Your task to perform on an android device: add a contact in the contacts app Image 0: 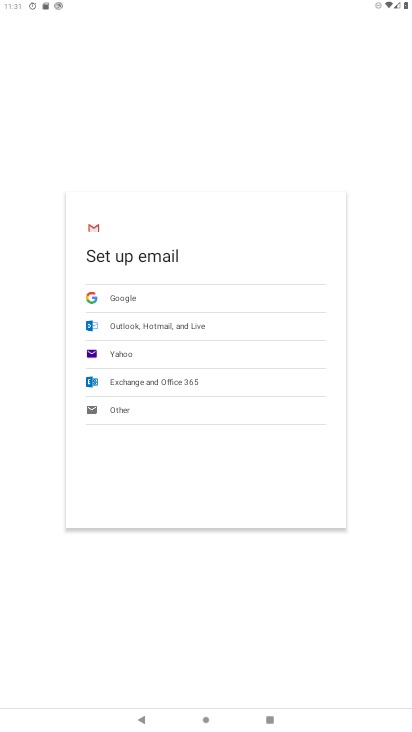
Step 0: press home button
Your task to perform on an android device: add a contact in the contacts app Image 1: 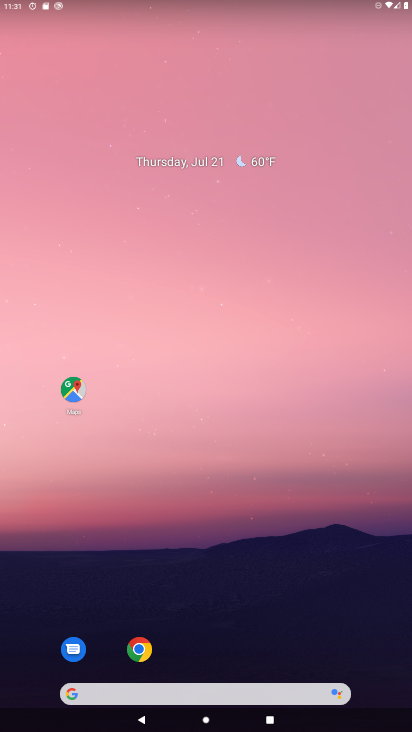
Step 1: drag from (386, 712) to (375, 221)
Your task to perform on an android device: add a contact in the contacts app Image 2: 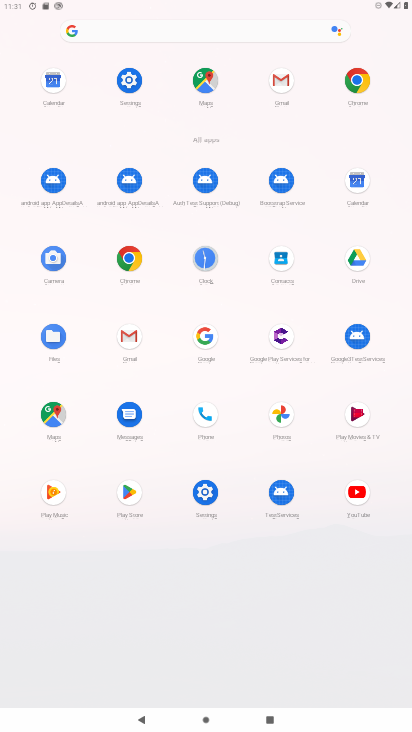
Step 2: click (284, 264)
Your task to perform on an android device: add a contact in the contacts app Image 3: 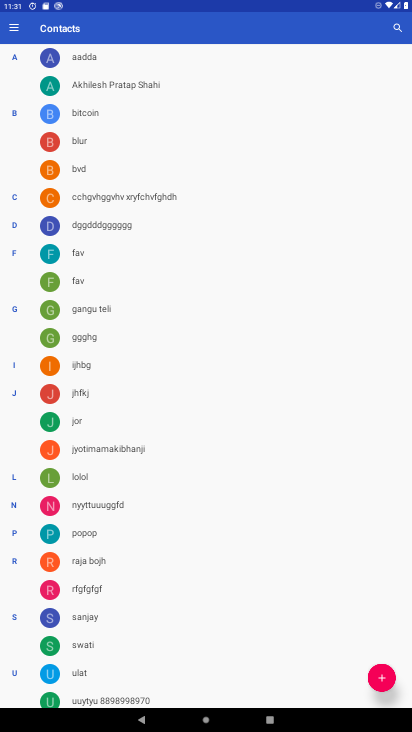
Step 3: click (386, 687)
Your task to perform on an android device: add a contact in the contacts app Image 4: 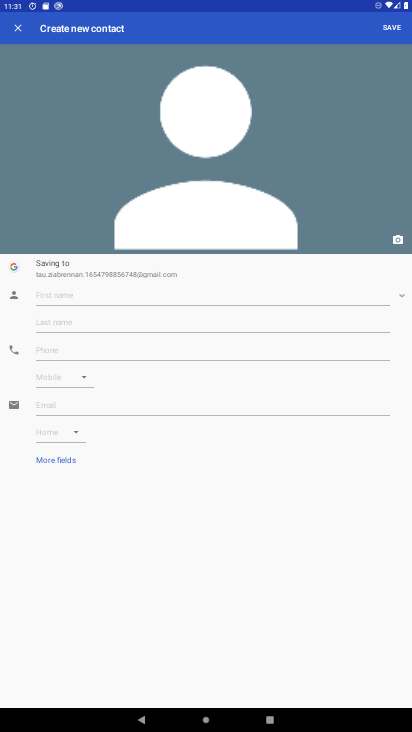
Step 4: click (139, 294)
Your task to perform on an android device: add a contact in the contacts app Image 5: 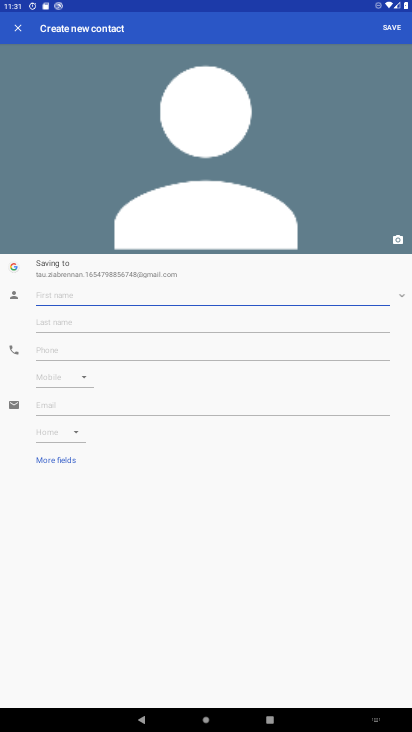
Step 5: type "yrcfgvfyrgvhgctd"
Your task to perform on an android device: add a contact in the contacts app Image 6: 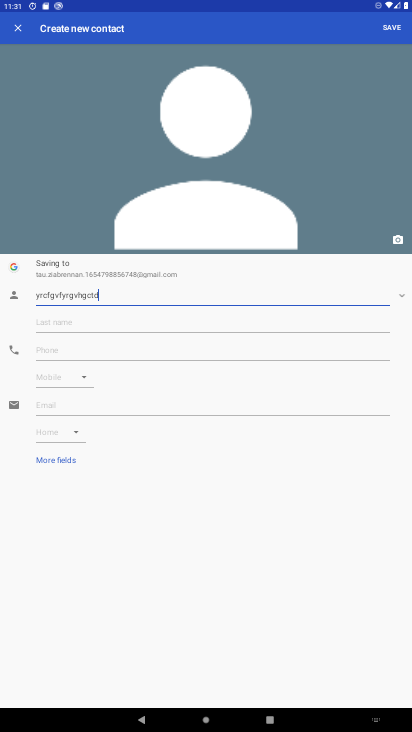
Step 6: click (69, 318)
Your task to perform on an android device: add a contact in the contacts app Image 7: 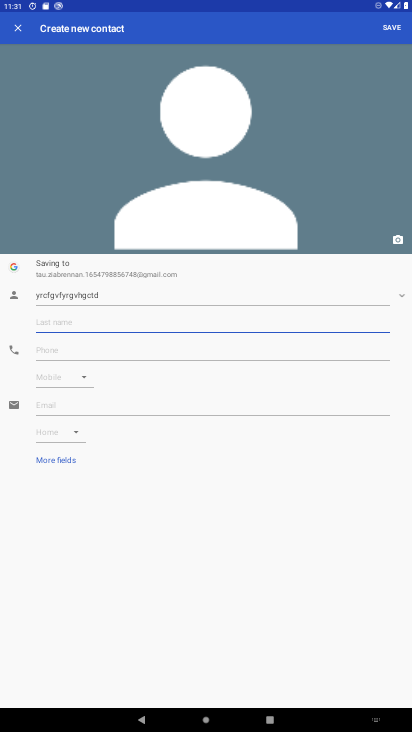
Step 7: type "rdyexjhgfgxtsxg"
Your task to perform on an android device: add a contact in the contacts app Image 8: 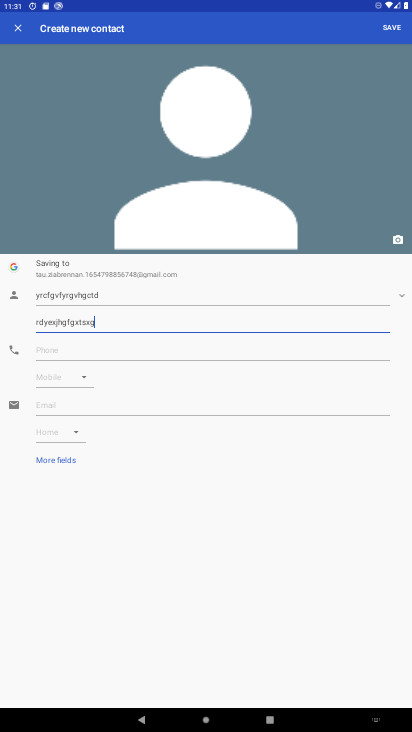
Step 8: click (54, 351)
Your task to perform on an android device: add a contact in the contacts app Image 9: 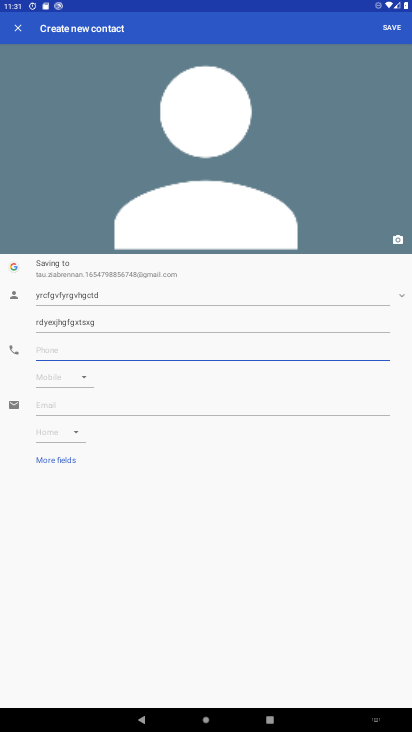
Step 9: type "65466543445445465"
Your task to perform on an android device: add a contact in the contacts app Image 10: 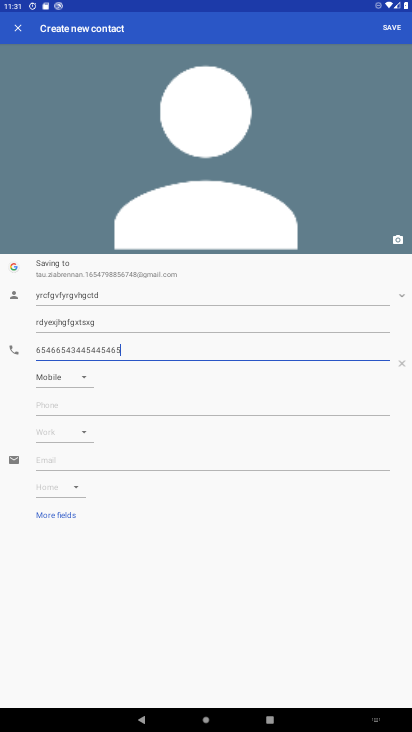
Step 10: click (395, 31)
Your task to perform on an android device: add a contact in the contacts app Image 11: 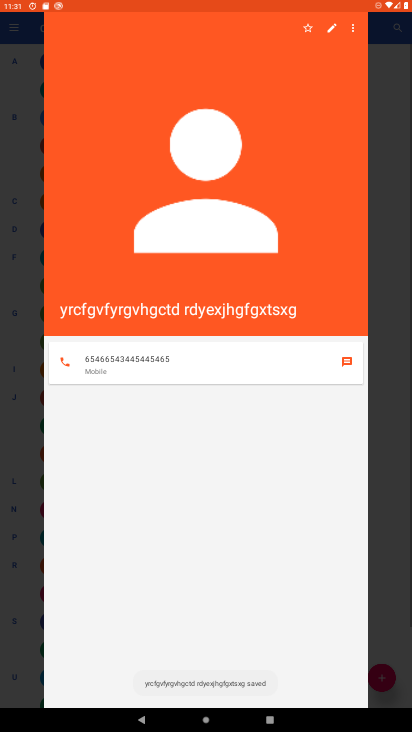
Step 11: task complete